Your task to perform on an android device: delete the emails in spam in the gmail app Image 0: 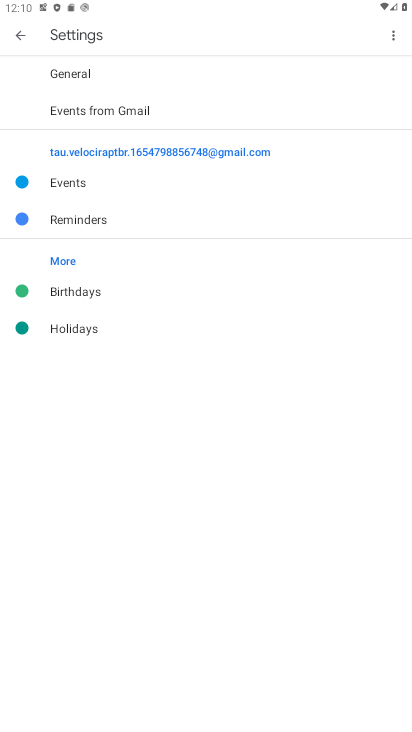
Step 0: press home button
Your task to perform on an android device: delete the emails in spam in the gmail app Image 1: 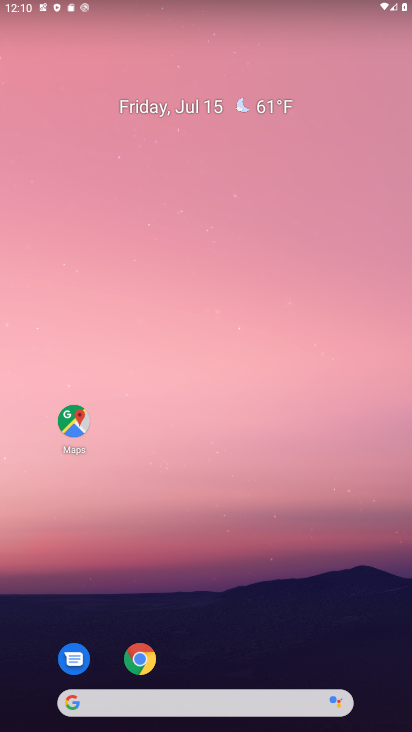
Step 1: drag from (174, 702) to (239, 173)
Your task to perform on an android device: delete the emails in spam in the gmail app Image 2: 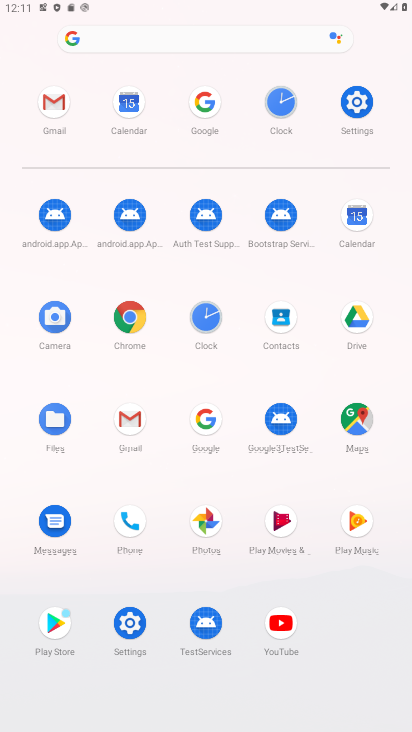
Step 2: click (53, 101)
Your task to perform on an android device: delete the emails in spam in the gmail app Image 3: 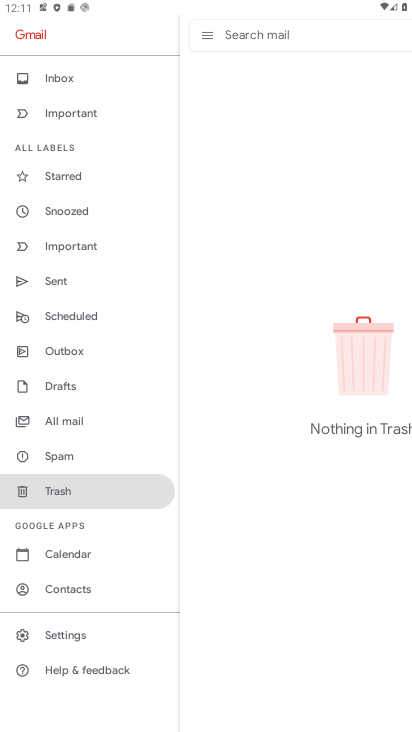
Step 3: click (67, 457)
Your task to perform on an android device: delete the emails in spam in the gmail app Image 4: 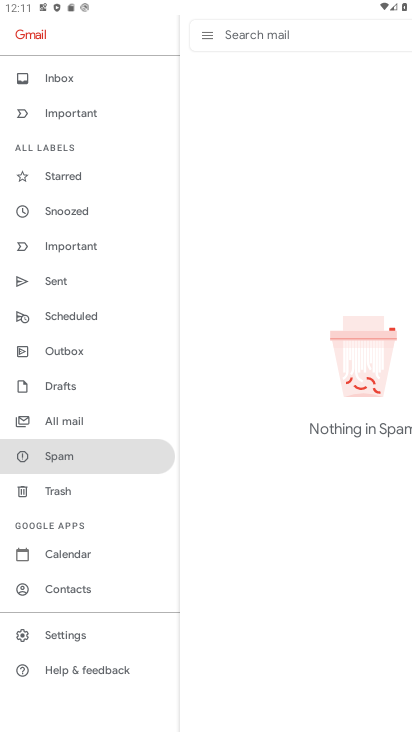
Step 4: task complete